Your task to perform on an android device: Open Yahoo.com Image 0: 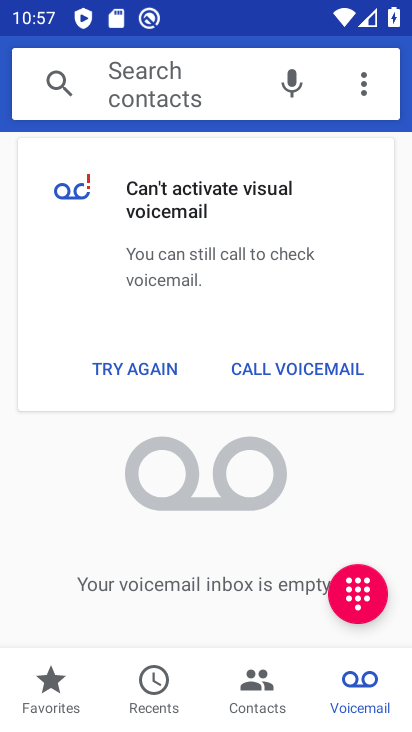
Step 0: press home button
Your task to perform on an android device: Open Yahoo.com Image 1: 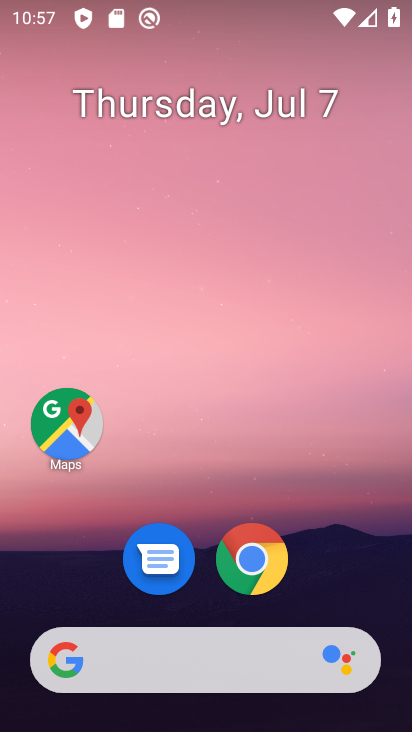
Step 1: drag from (387, 557) to (362, 83)
Your task to perform on an android device: Open Yahoo.com Image 2: 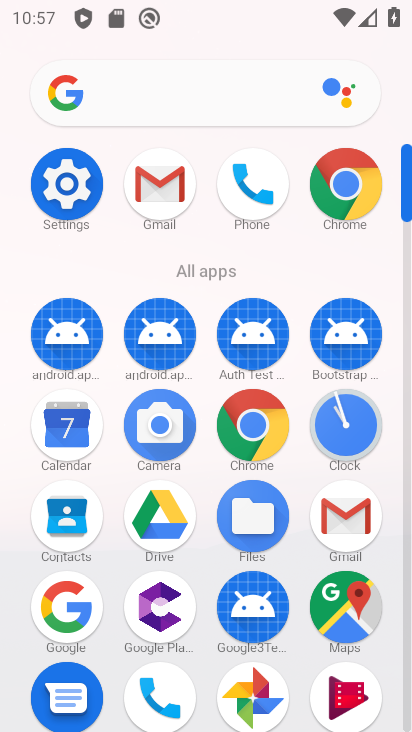
Step 2: click (276, 416)
Your task to perform on an android device: Open Yahoo.com Image 3: 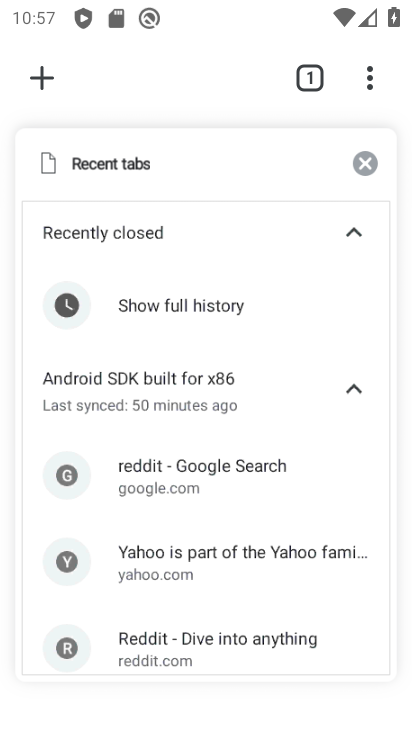
Step 3: press back button
Your task to perform on an android device: Open Yahoo.com Image 4: 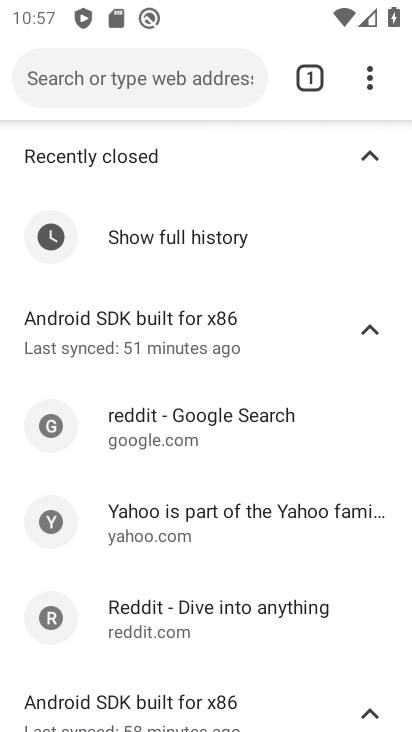
Step 4: click (210, 94)
Your task to perform on an android device: Open Yahoo.com Image 5: 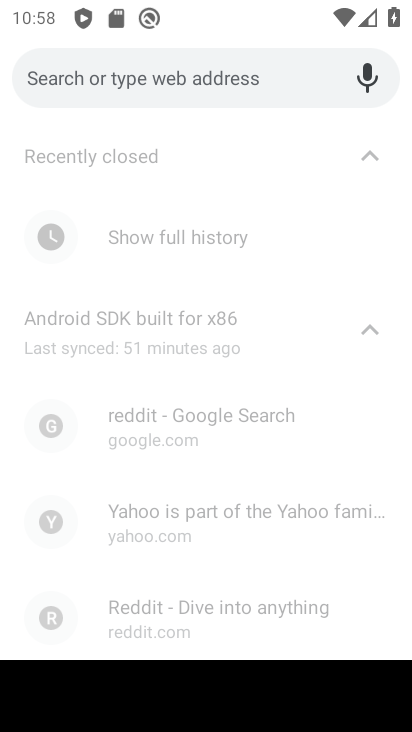
Step 5: type "yahoo.com"
Your task to perform on an android device: Open Yahoo.com Image 6: 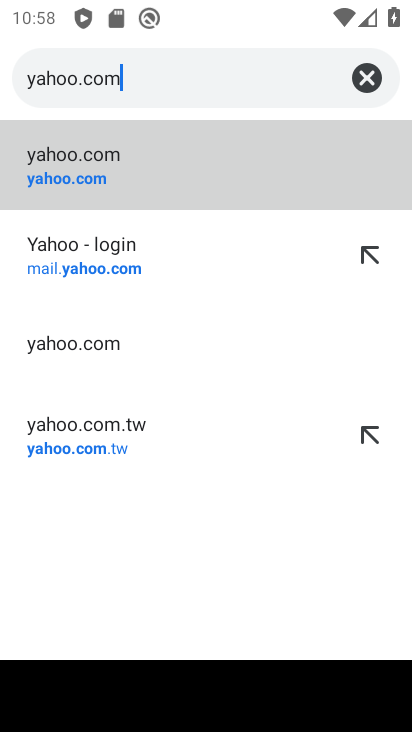
Step 6: click (102, 170)
Your task to perform on an android device: Open Yahoo.com Image 7: 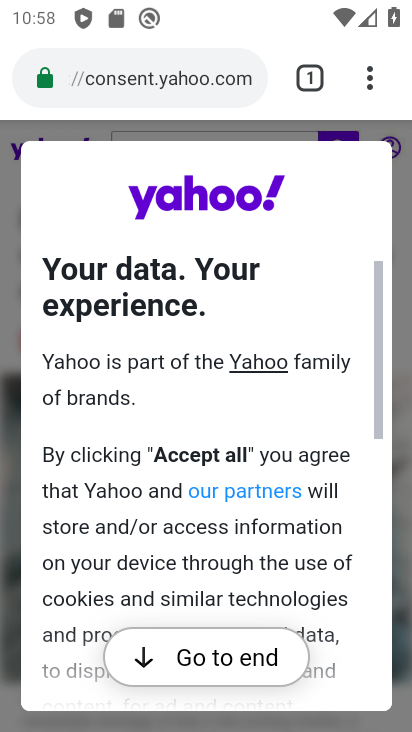
Step 7: task complete